Your task to perform on an android device: What's the weather going to be tomorrow? Image 0: 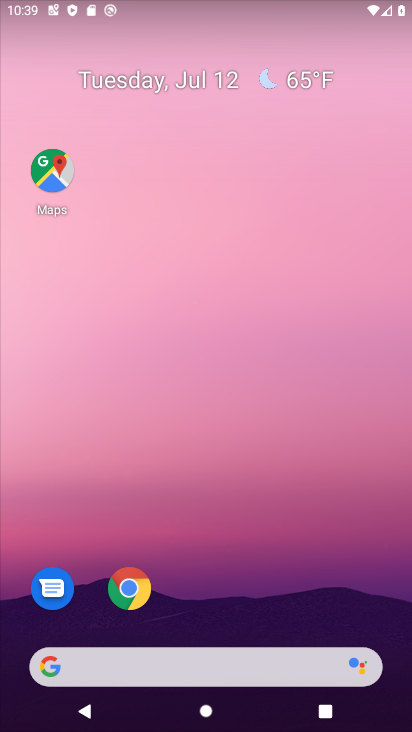
Step 0: click (82, 663)
Your task to perform on an android device: What's the weather going to be tomorrow? Image 1: 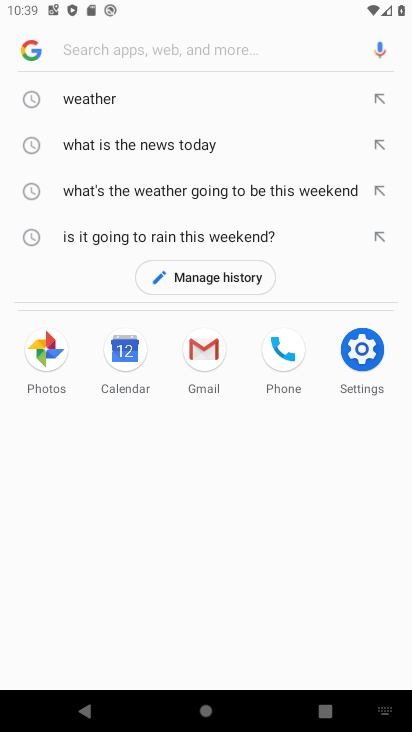
Step 1: type "What's the weather going to be tomorrow?"
Your task to perform on an android device: What's the weather going to be tomorrow? Image 2: 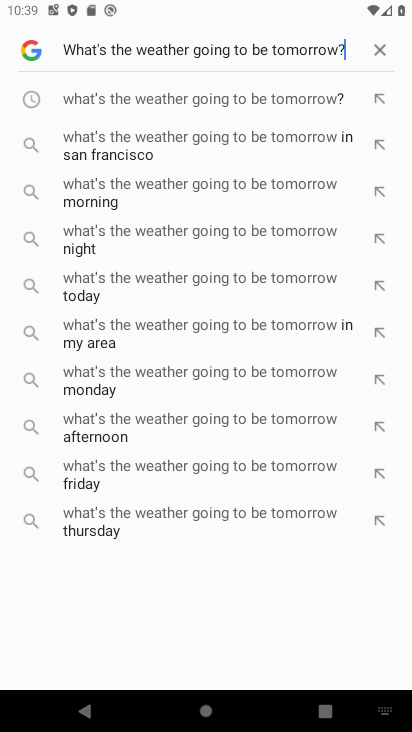
Step 2: type ""
Your task to perform on an android device: What's the weather going to be tomorrow? Image 3: 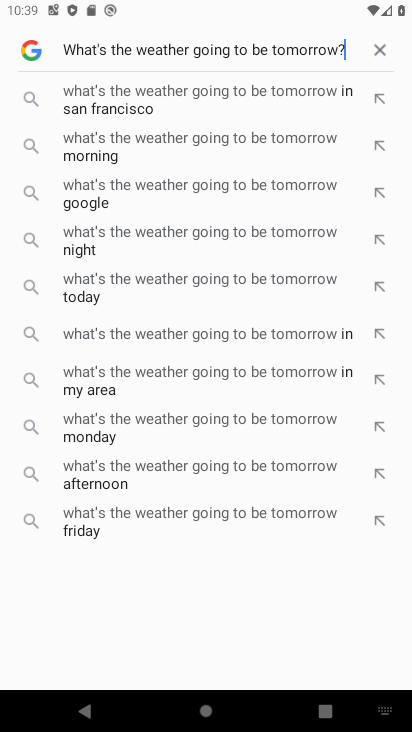
Step 3: type ""
Your task to perform on an android device: What's the weather going to be tomorrow? Image 4: 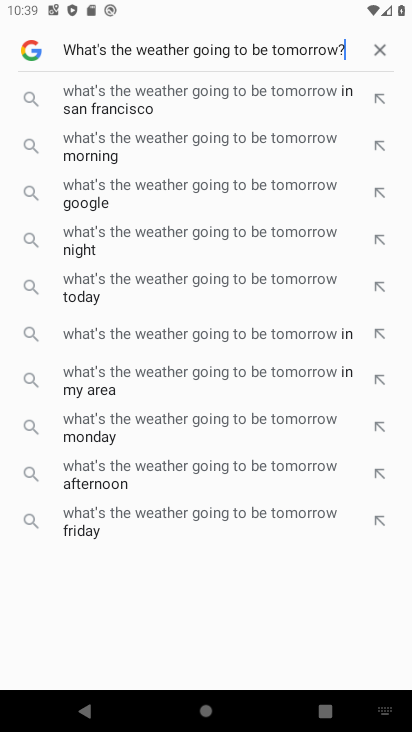
Step 4: type ""
Your task to perform on an android device: What's the weather going to be tomorrow? Image 5: 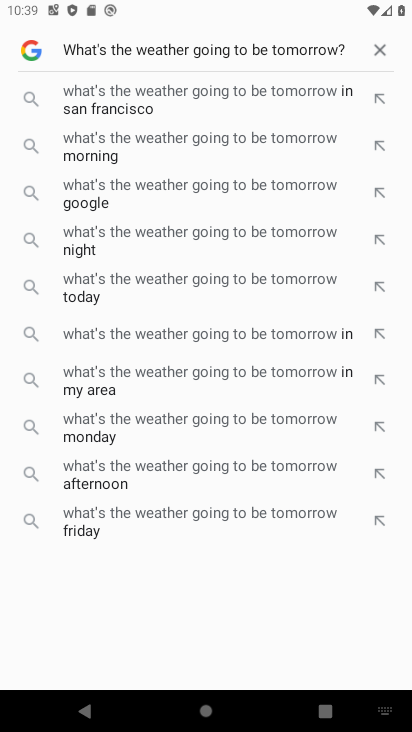
Step 5: task complete